Your task to perform on an android device: Open Google Chrome and open the bookmarks view Image 0: 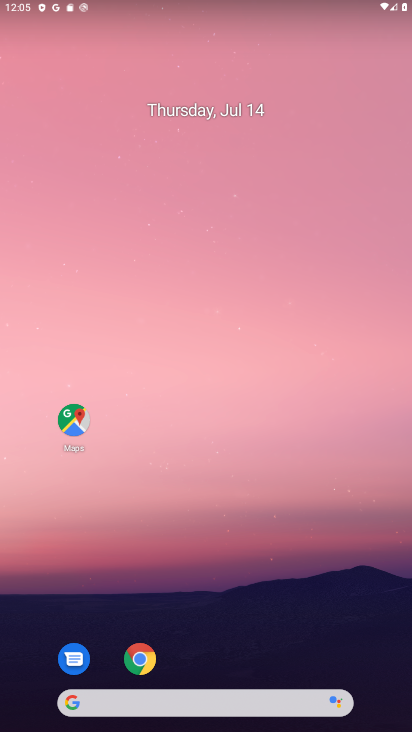
Step 0: click (125, 657)
Your task to perform on an android device: Open Google Chrome and open the bookmarks view Image 1: 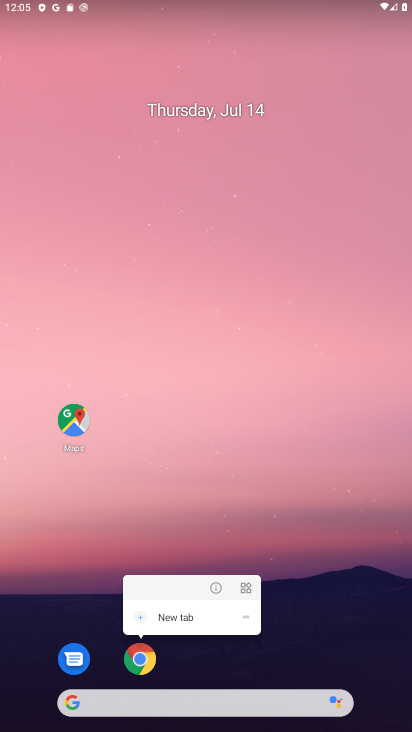
Step 1: click (145, 669)
Your task to perform on an android device: Open Google Chrome and open the bookmarks view Image 2: 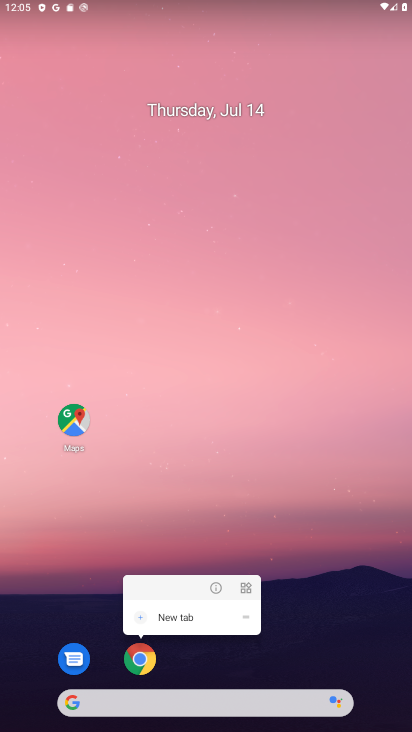
Step 2: click (143, 653)
Your task to perform on an android device: Open Google Chrome and open the bookmarks view Image 3: 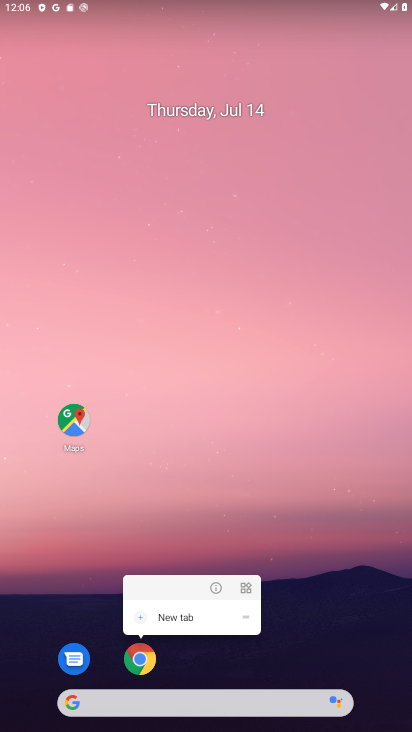
Step 3: click (146, 661)
Your task to perform on an android device: Open Google Chrome and open the bookmarks view Image 4: 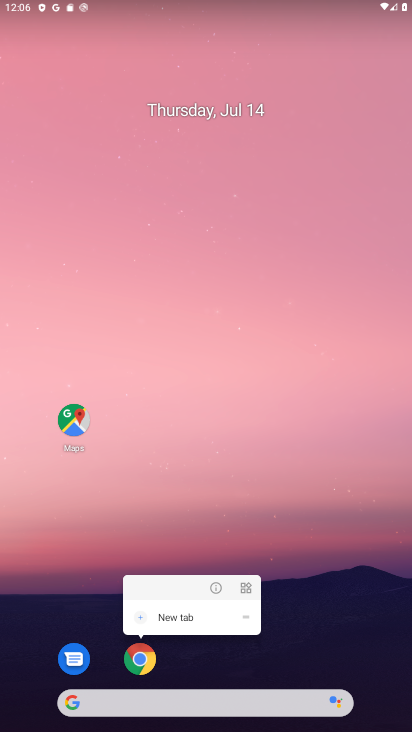
Step 4: task complete